Your task to perform on an android device: What's the weather? Image 0: 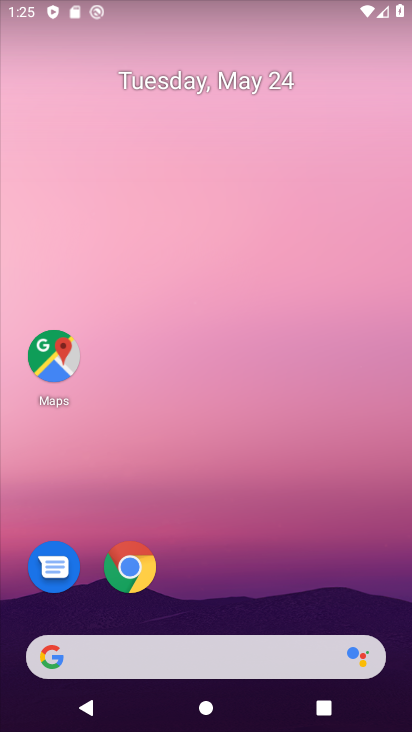
Step 0: click (187, 644)
Your task to perform on an android device: What's the weather? Image 1: 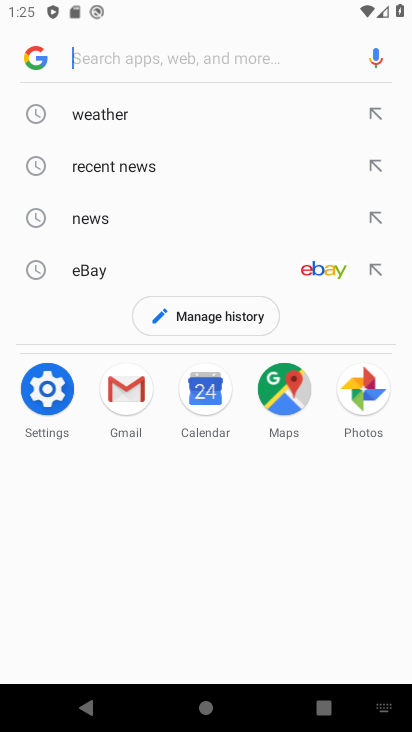
Step 1: click (101, 115)
Your task to perform on an android device: What's the weather? Image 2: 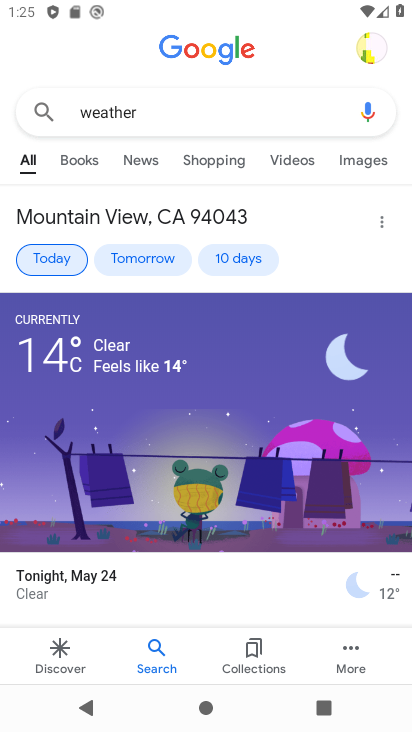
Step 2: task complete